Your task to perform on an android device: Open wifi settings Image 0: 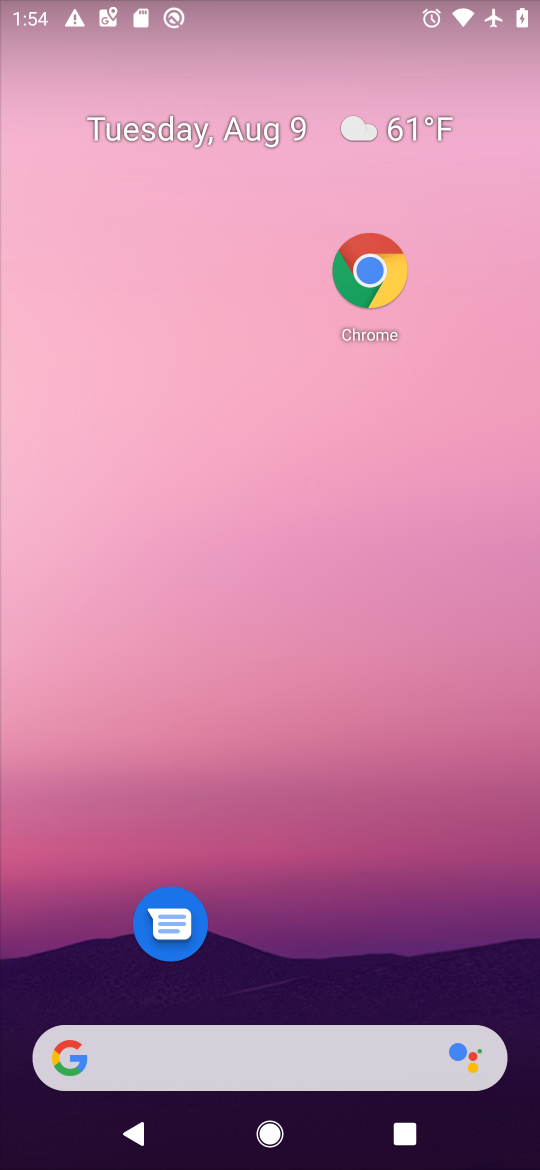
Step 0: drag from (363, 1006) to (327, 62)
Your task to perform on an android device: Open wifi settings Image 1: 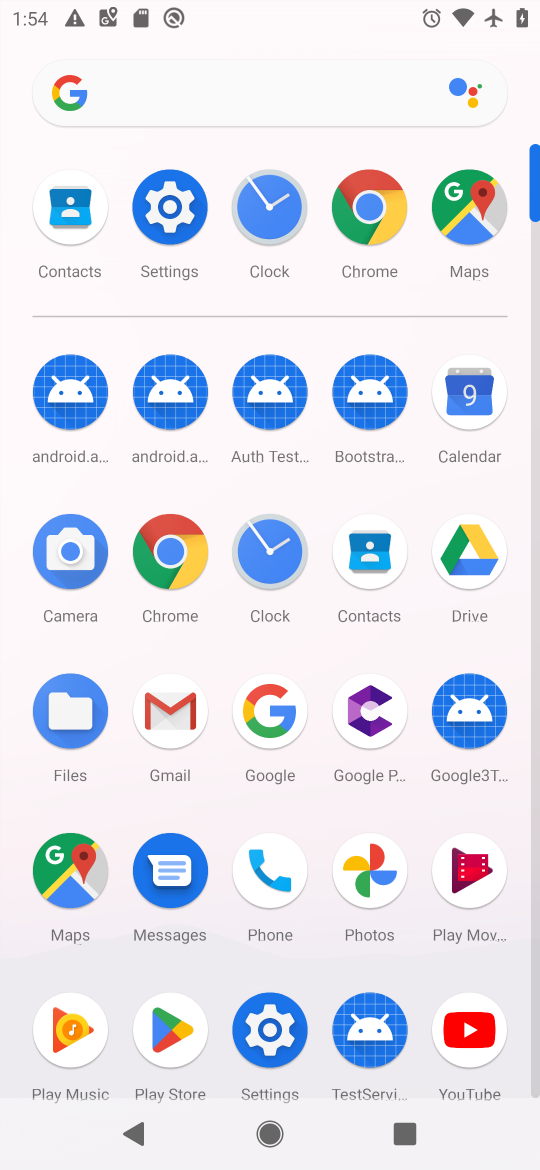
Step 1: click (166, 245)
Your task to perform on an android device: Open wifi settings Image 2: 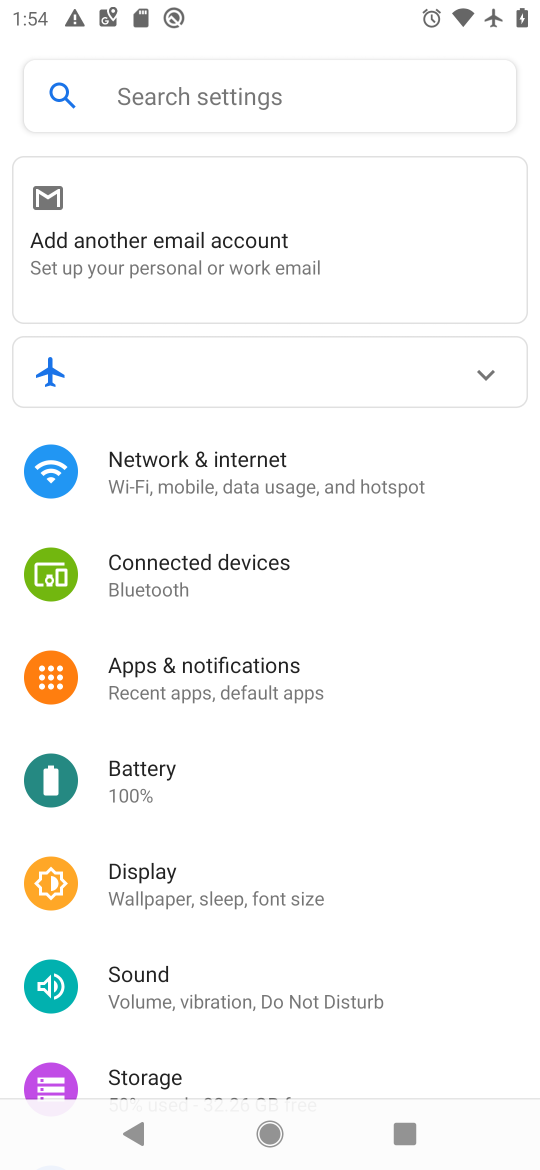
Step 2: click (270, 464)
Your task to perform on an android device: Open wifi settings Image 3: 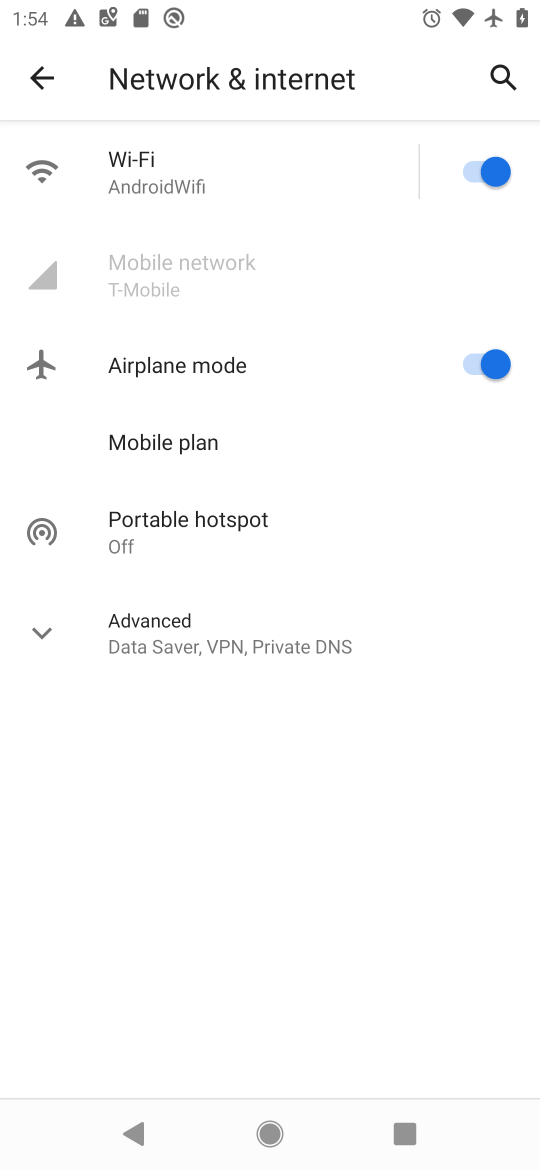
Step 3: task complete